Your task to perform on an android device: Add apple airpods pro to the cart on walmart.com, then select checkout. Image 0: 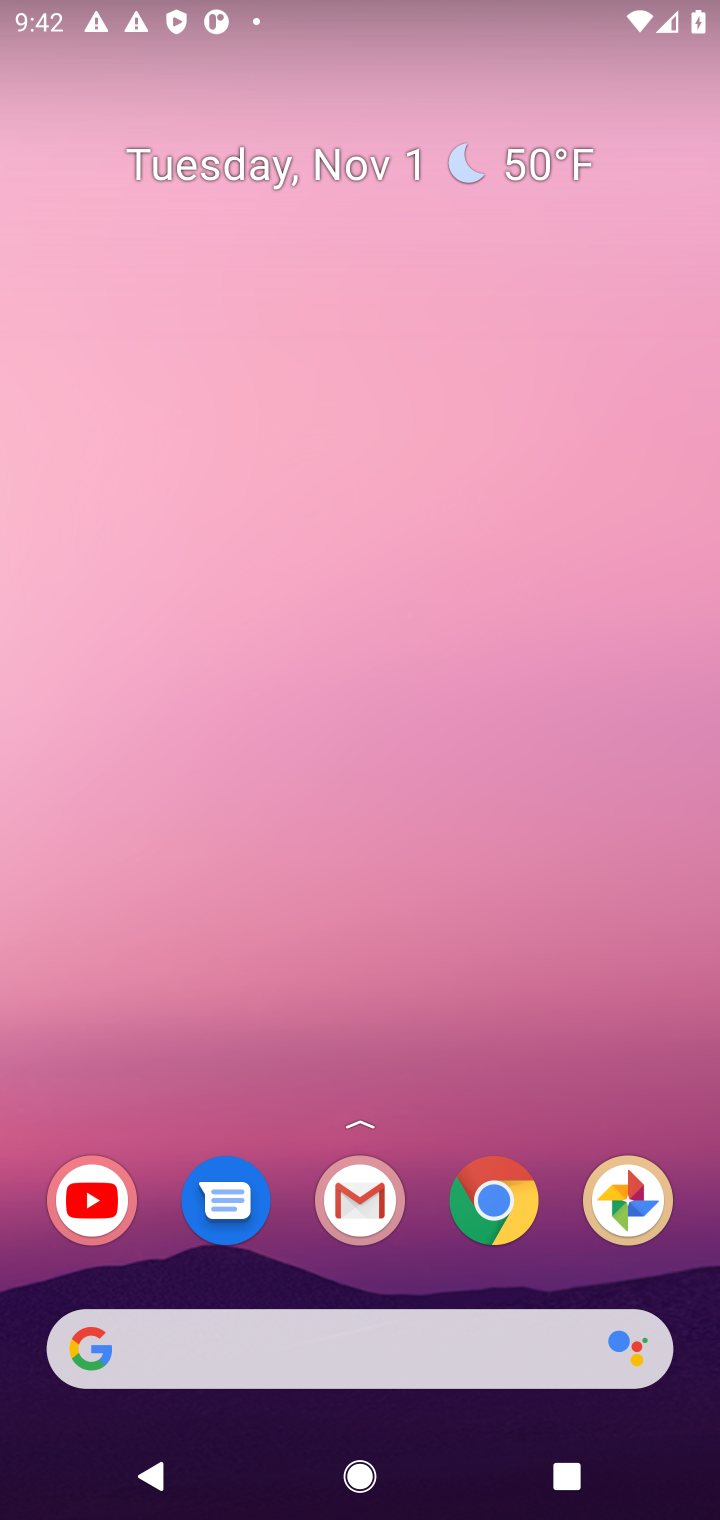
Step 0: click (259, 1367)
Your task to perform on an android device: Add apple airpods pro to the cart on walmart.com, then select checkout. Image 1: 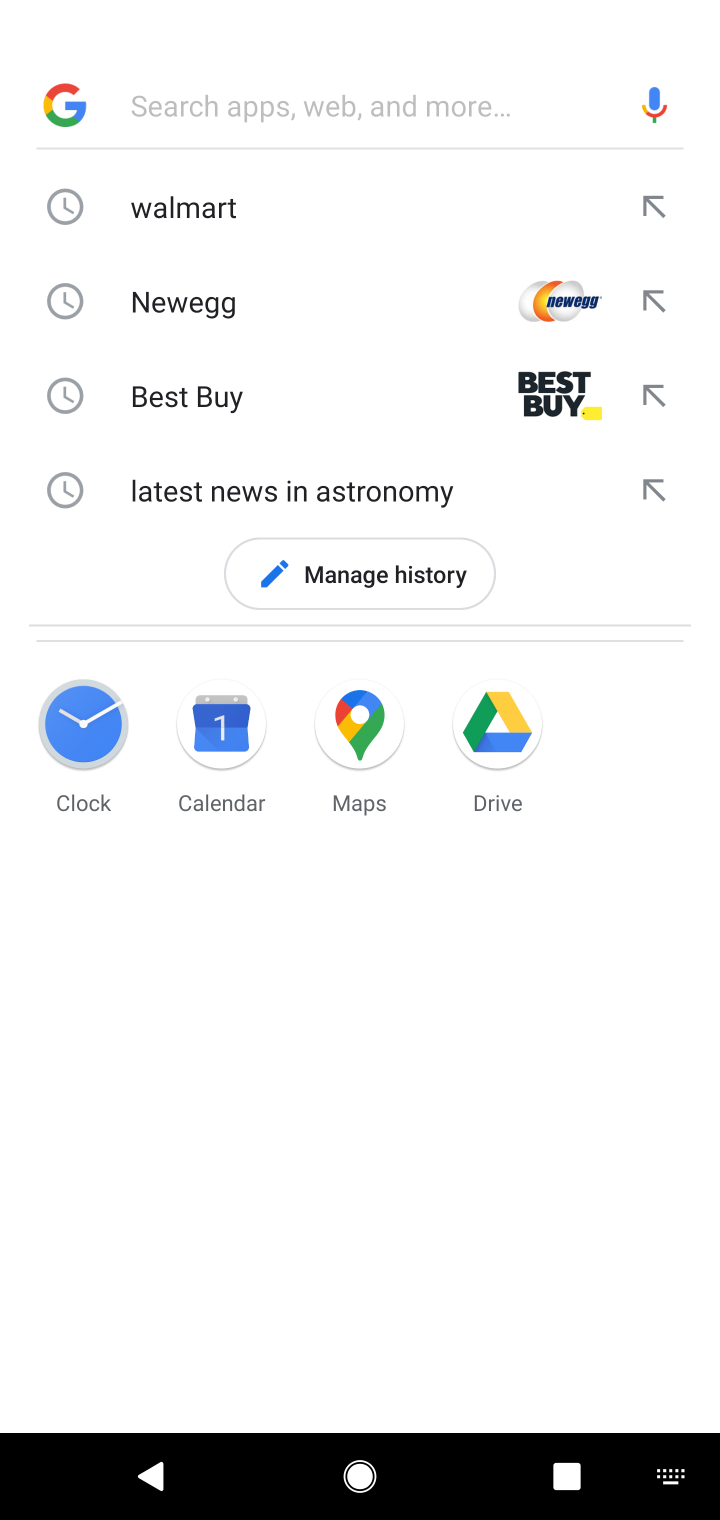
Step 1: type "walmart.com"
Your task to perform on an android device: Add apple airpods pro to the cart on walmart.com, then select checkout. Image 2: 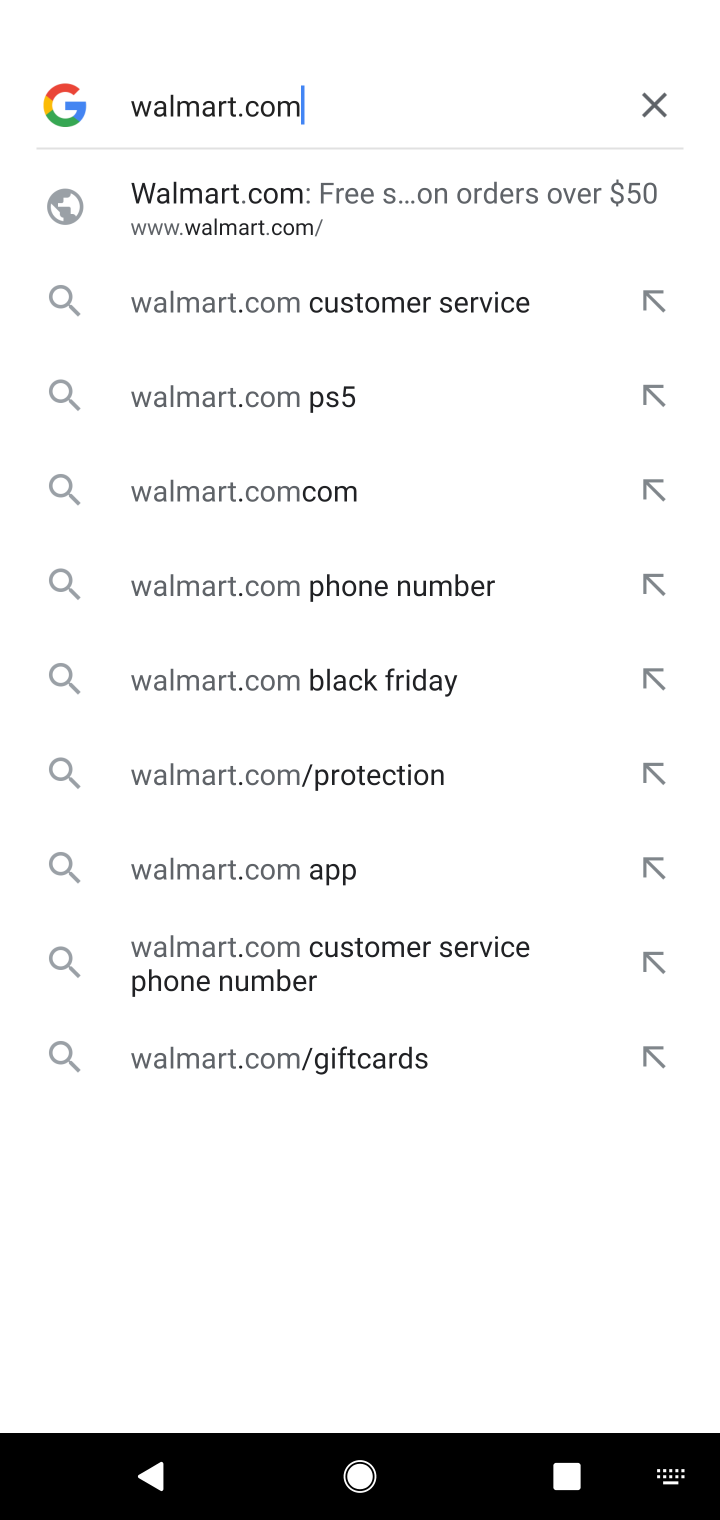
Step 2: click (294, 213)
Your task to perform on an android device: Add apple airpods pro to the cart on walmart.com, then select checkout. Image 3: 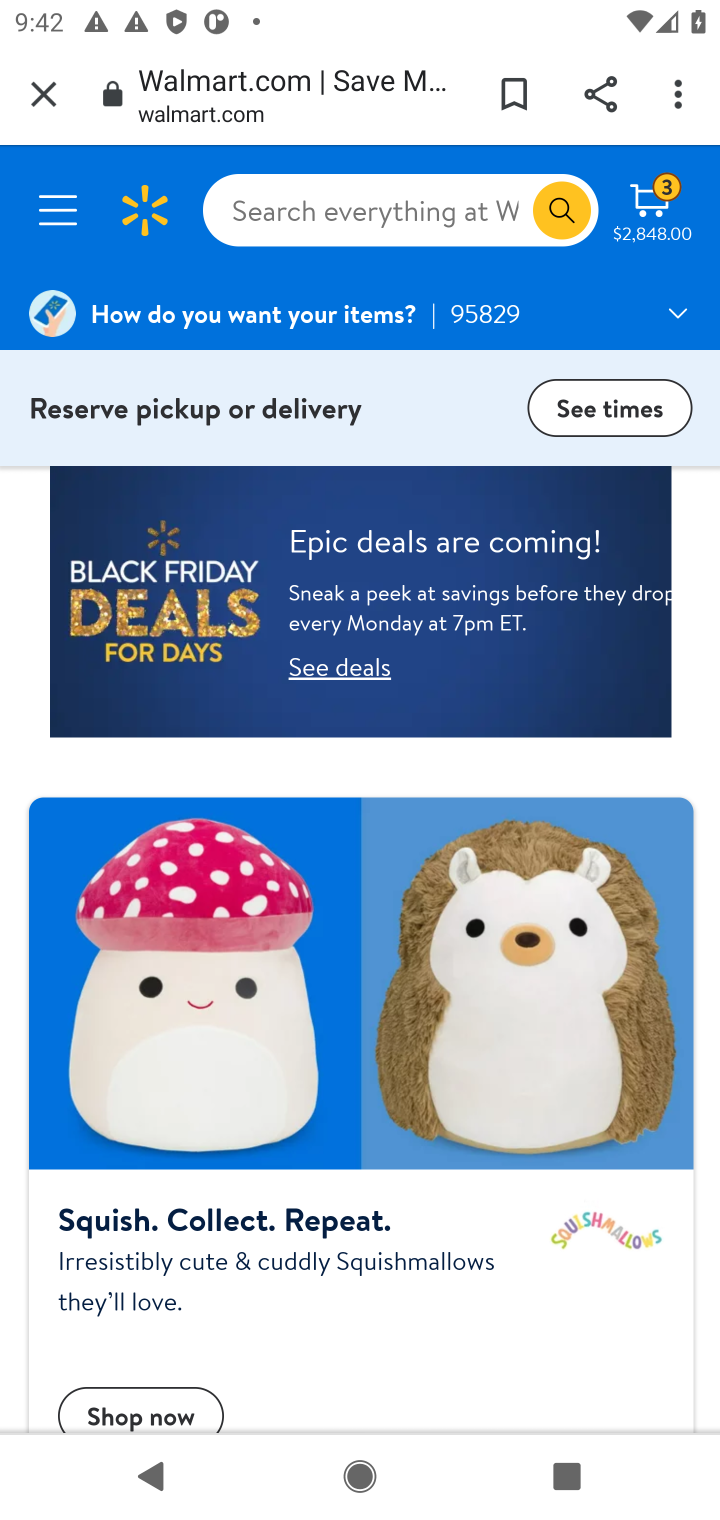
Step 3: click (347, 219)
Your task to perform on an android device: Add apple airpods pro to the cart on walmart.com, then select checkout. Image 4: 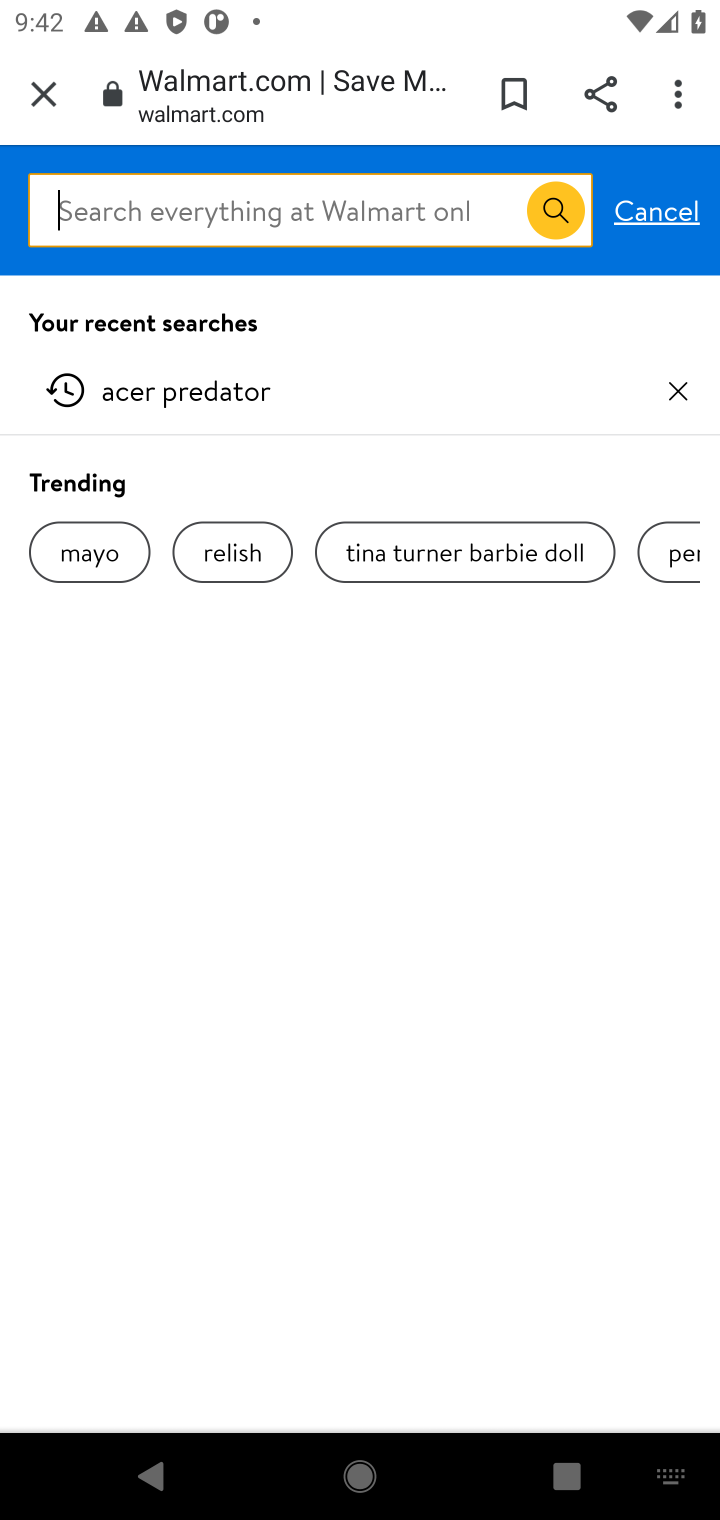
Step 4: drag from (598, 1312) to (531, 1418)
Your task to perform on an android device: Add apple airpods pro to the cart on walmart.com, then select checkout. Image 5: 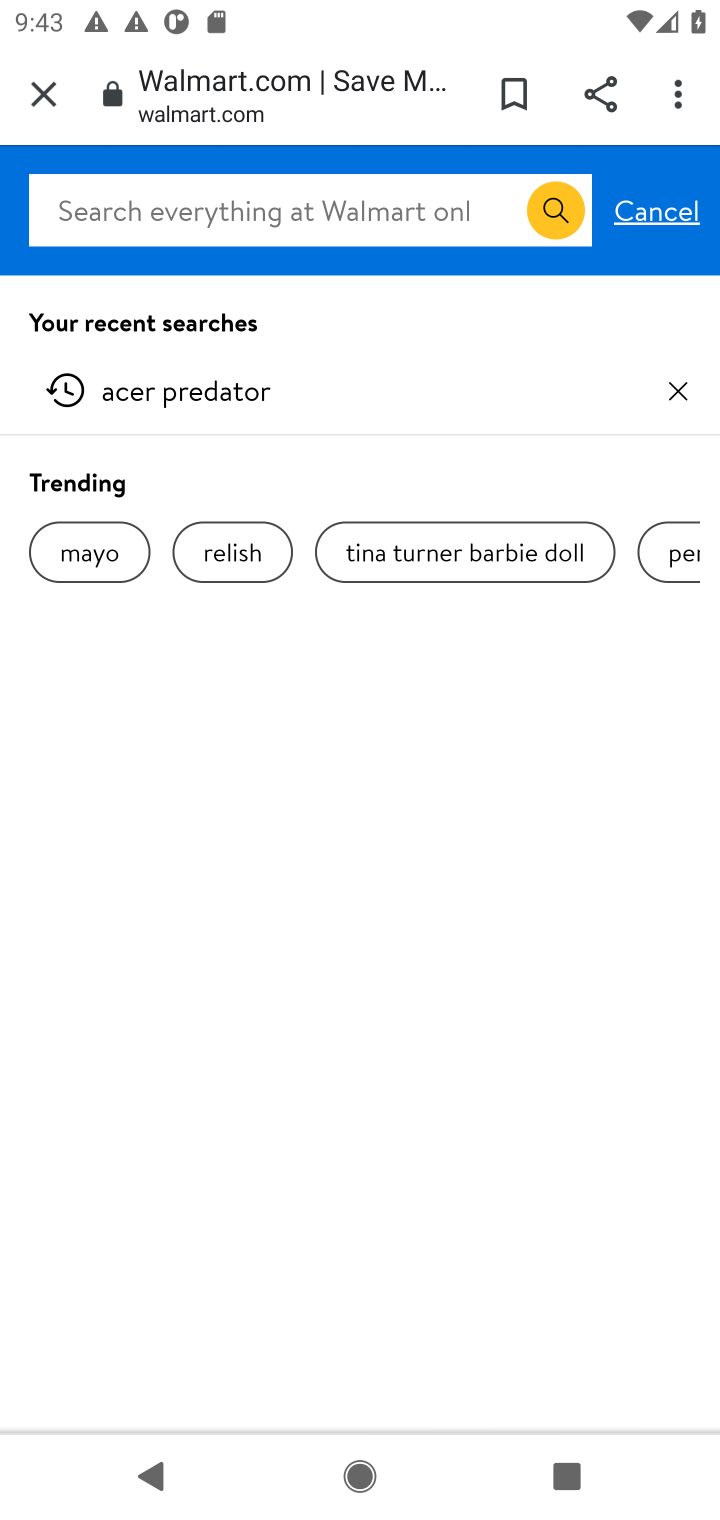
Step 5: type "apple airpods"
Your task to perform on an android device: Add apple airpods pro to the cart on walmart.com, then select checkout. Image 6: 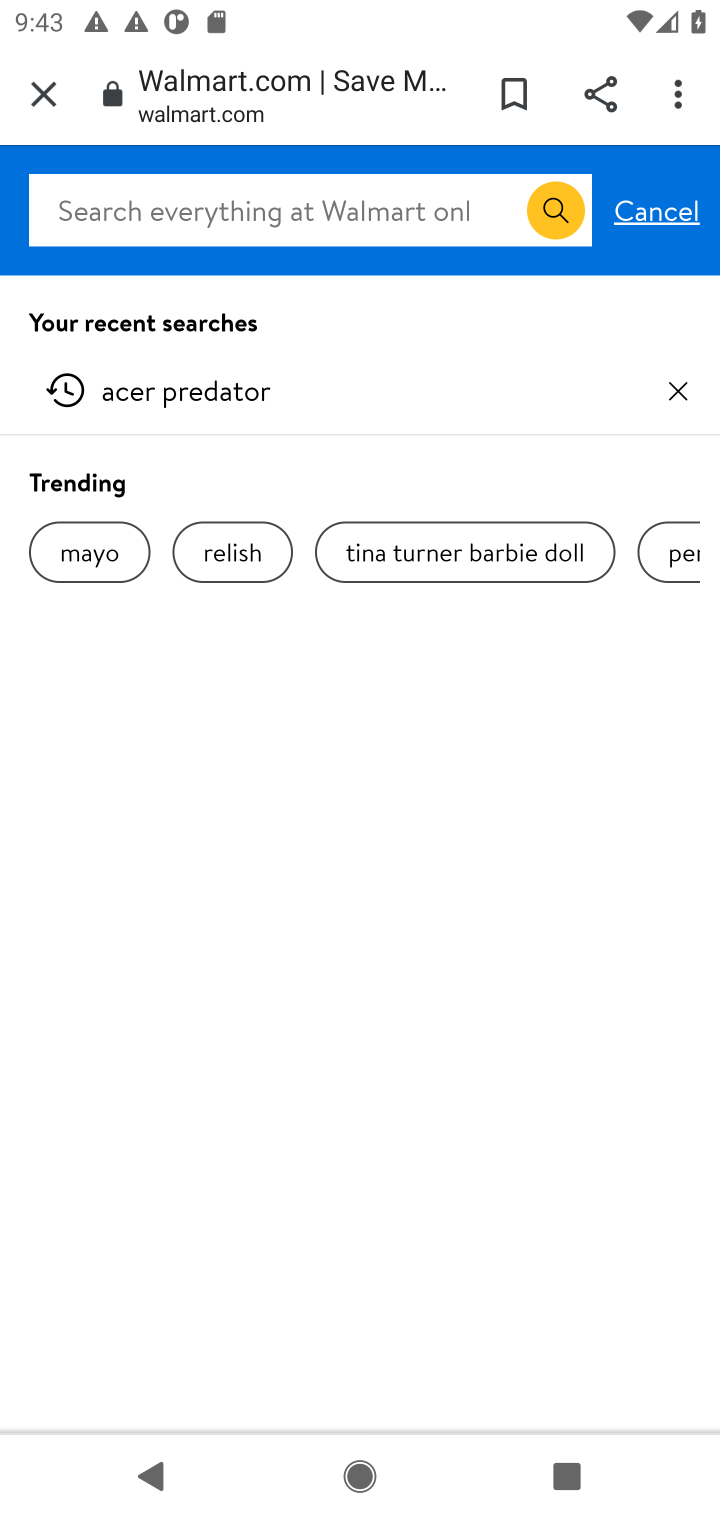
Step 6: type ""
Your task to perform on an android device: Add apple airpods pro to the cart on walmart.com, then select checkout. Image 7: 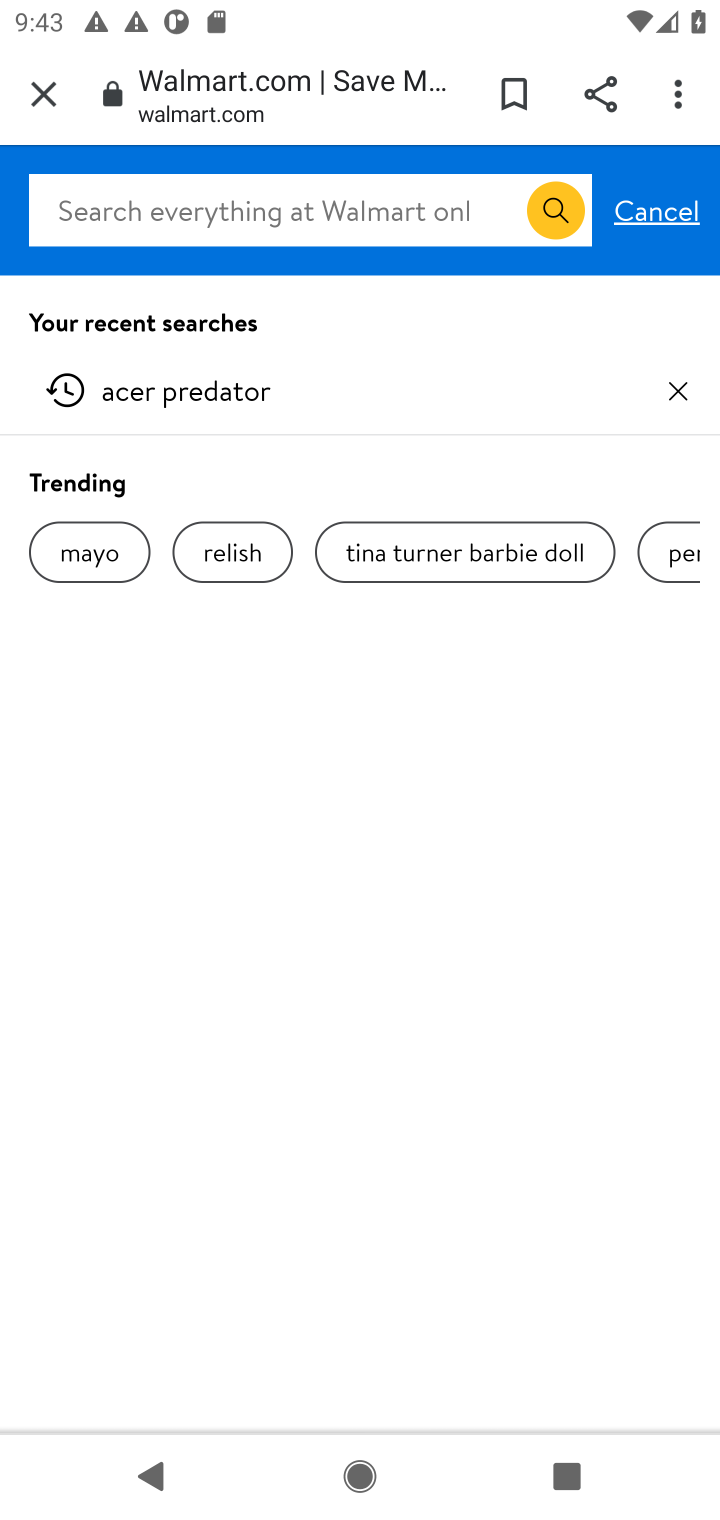
Step 7: click (456, 182)
Your task to perform on an android device: Add apple airpods pro to the cart on walmart.com, then select checkout. Image 8: 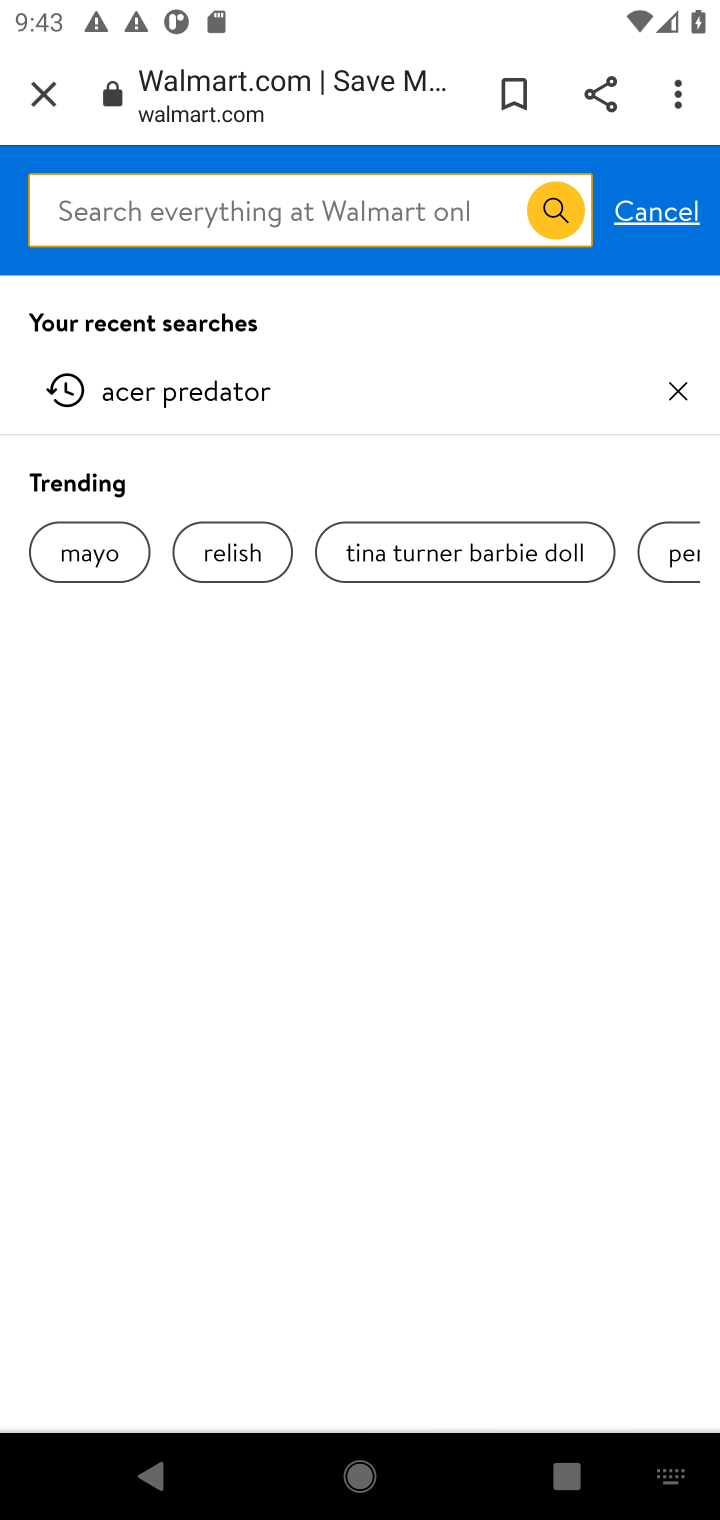
Step 8: drag from (272, 1472) to (547, 1302)
Your task to perform on an android device: Add apple airpods pro to the cart on walmart.com, then select checkout. Image 9: 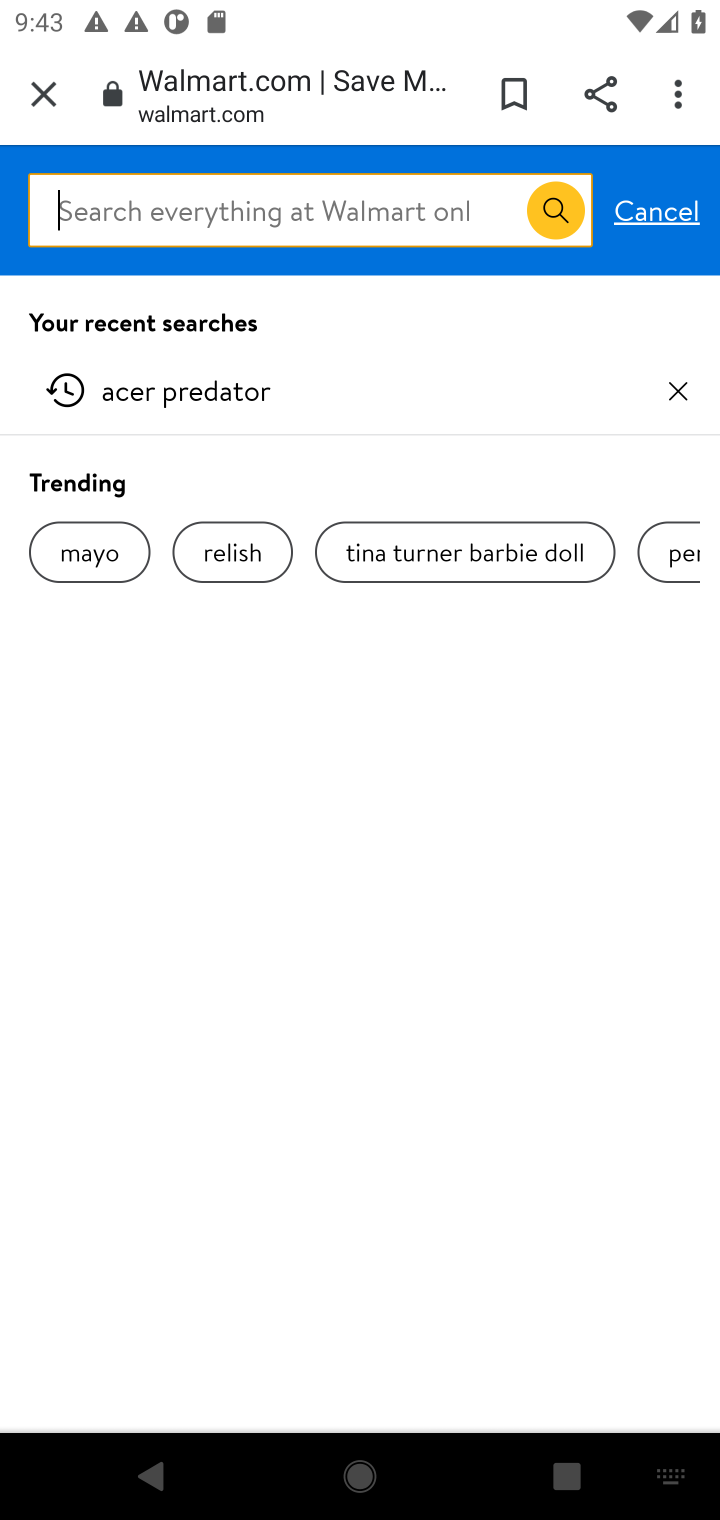
Step 9: type "apple airpods"
Your task to perform on an android device: Add apple airpods pro to the cart on walmart.com, then select checkout. Image 10: 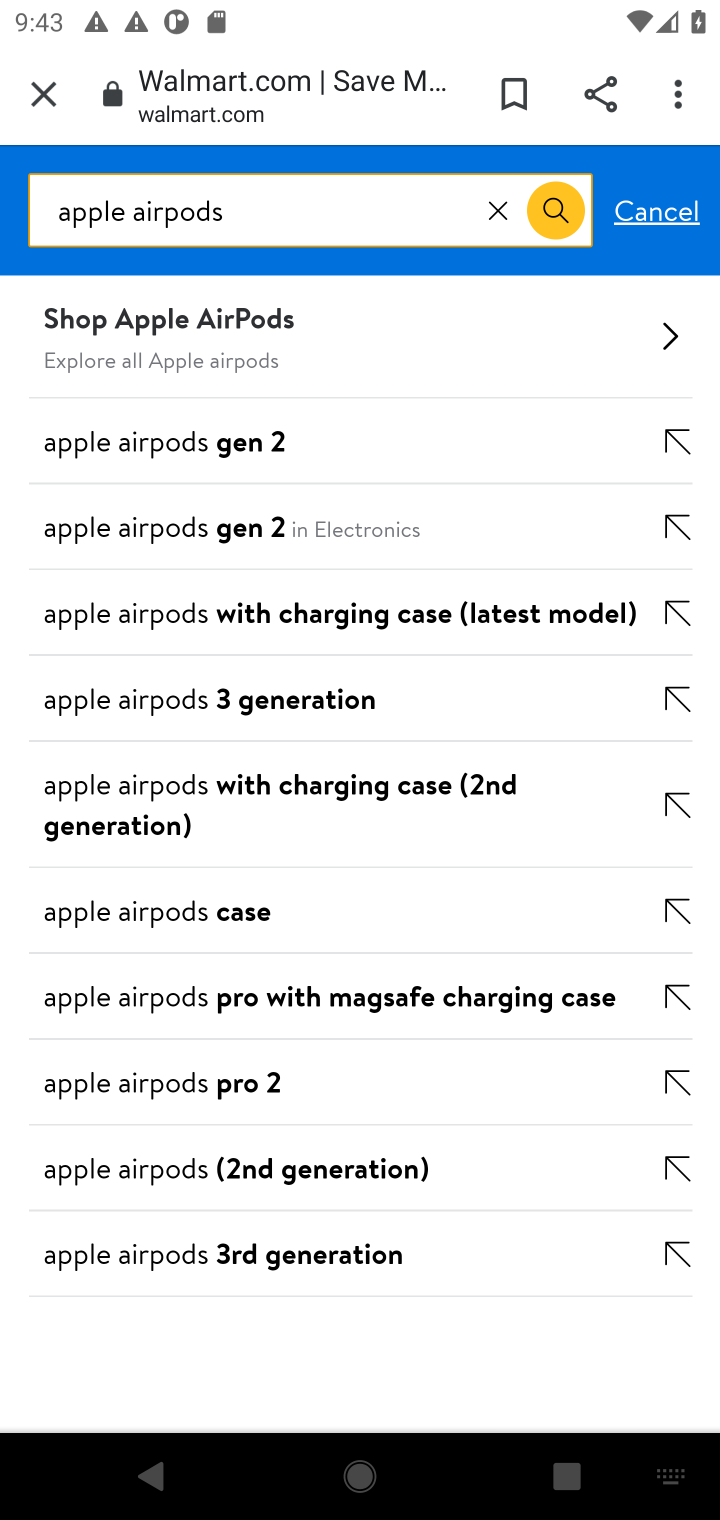
Step 10: click (299, 313)
Your task to perform on an android device: Add apple airpods pro to the cart on walmart.com, then select checkout. Image 11: 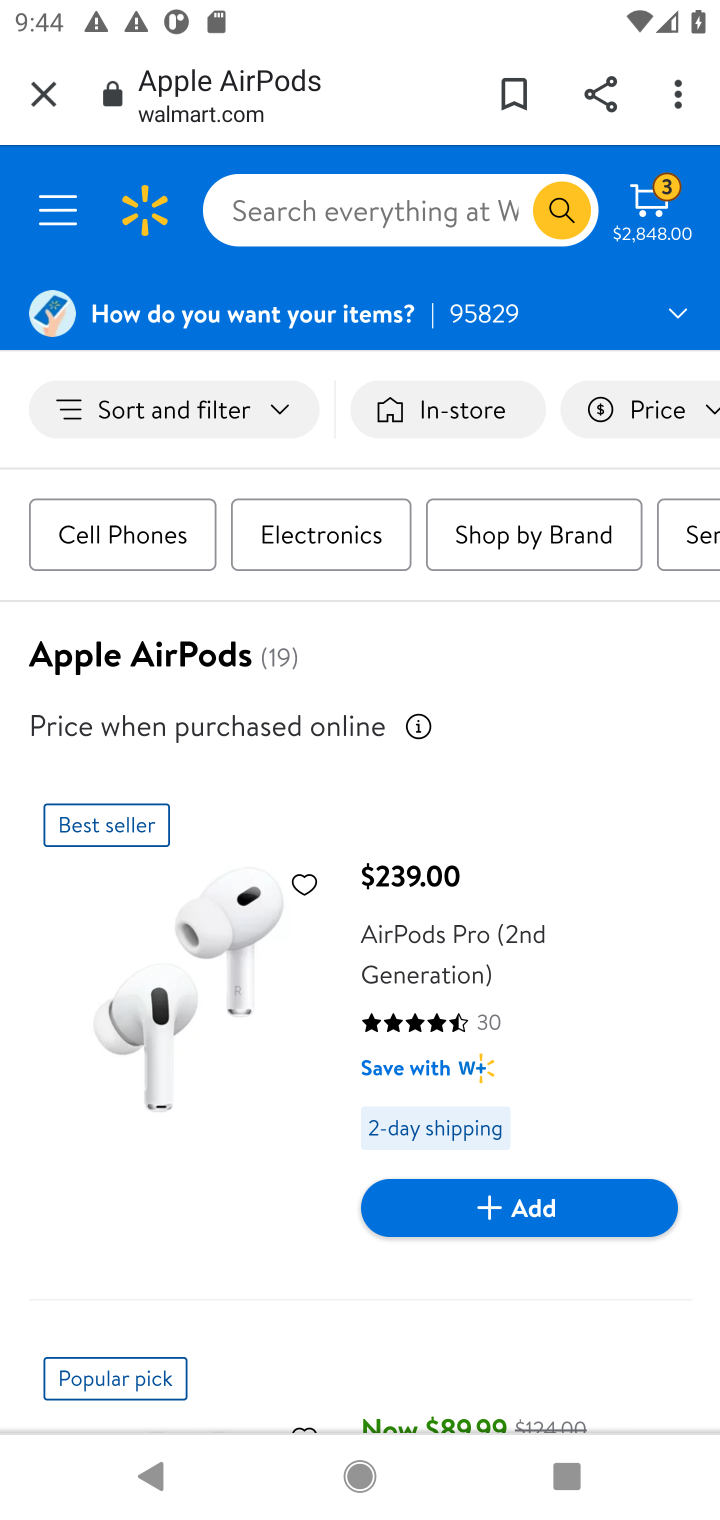
Step 11: click (504, 1219)
Your task to perform on an android device: Add apple airpods pro to the cart on walmart.com, then select checkout. Image 12: 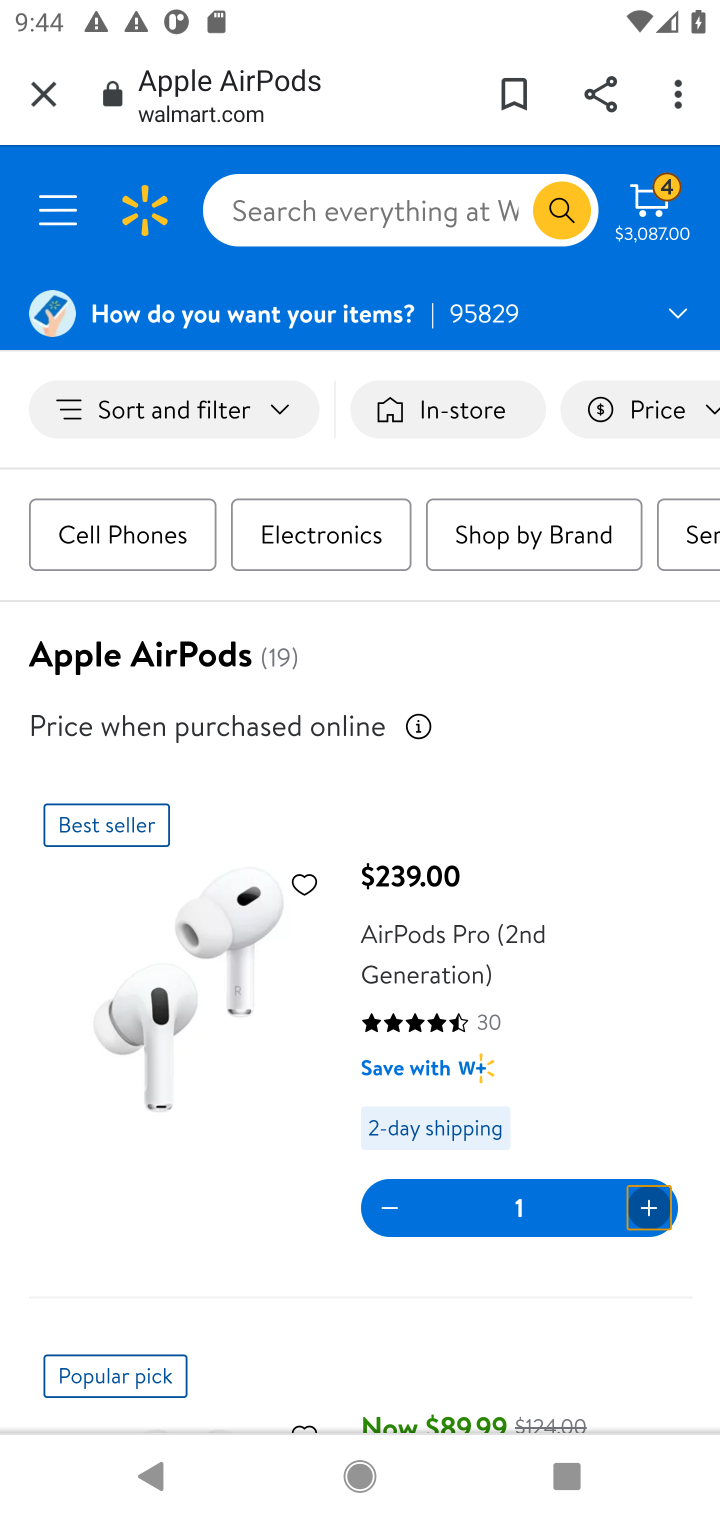
Step 12: task complete